Your task to perform on an android device: manage bookmarks in the chrome app Image 0: 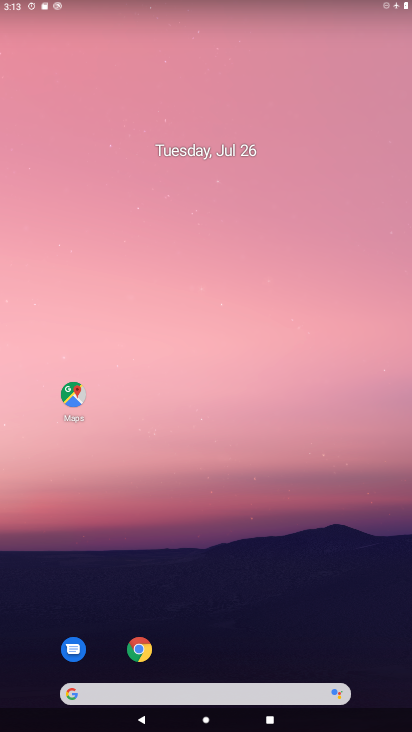
Step 0: drag from (349, 621) to (182, 70)
Your task to perform on an android device: manage bookmarks in the chrome app Image 1: 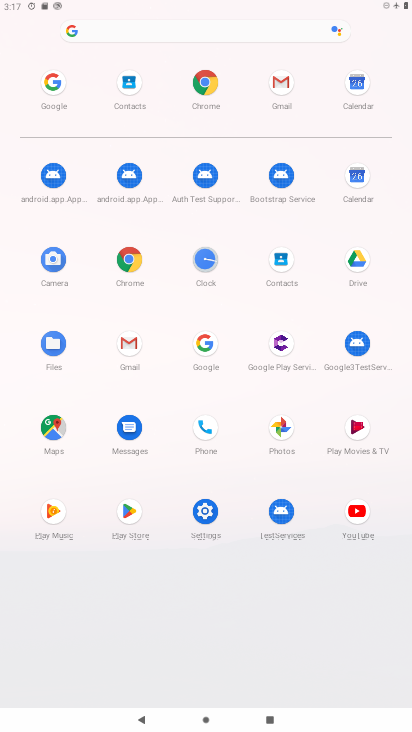
Step 1: click (122, 271)
Your task to perform on an android device: manage bookmarks in the chrome app Image 2: 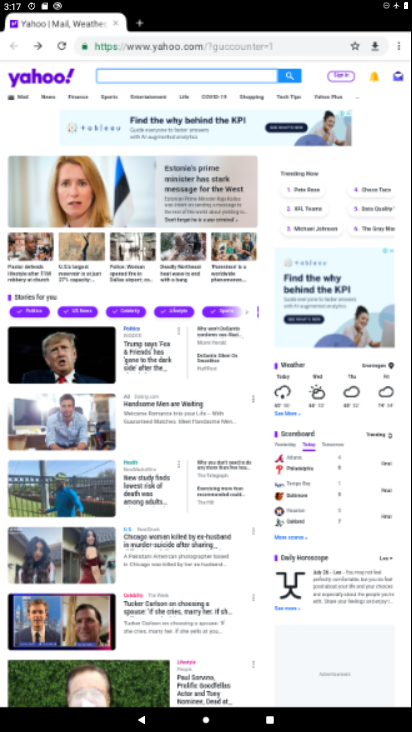
Step 2: task complete